Your task to perform on an android device: open a bookmark in the chrome app Image 0: 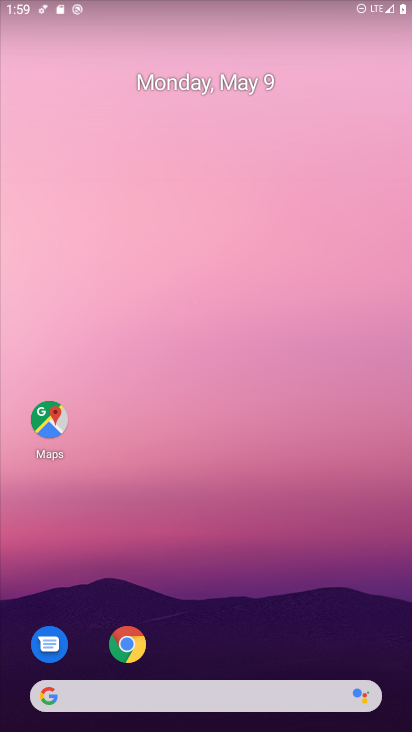
Step 0: drag from (280, 634) to (314, 45)
Your task to perform on an android device: open a bookmark in the chrome app Image 1: 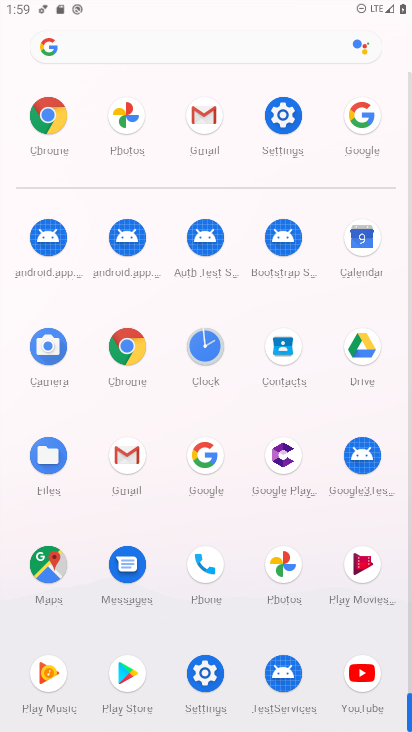
Step 1: click (53, 153)
Your task to perform on an android device: open a bookmark in the chrome app Image 2: 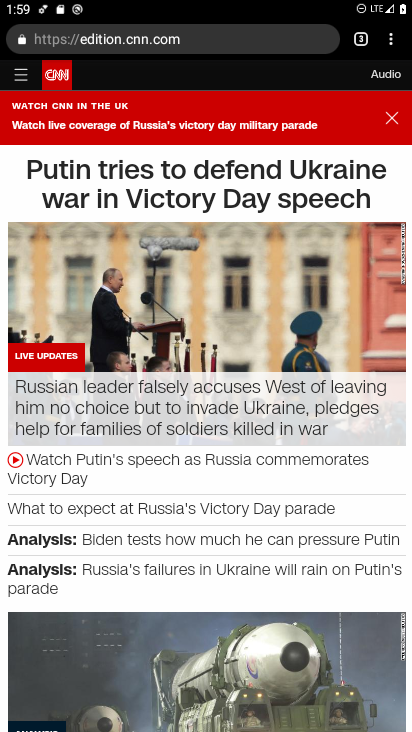
Step 2: click (387, 41)
Your task to perform on an android device: open a bookmark in the chrome app Image 3: 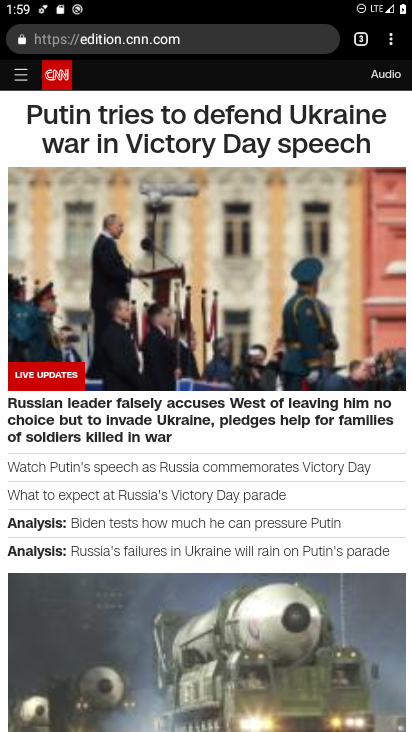
Step 3: click (388, 35)
Your task to perform on an android device: open a bookmark in the chrome app Image 4: 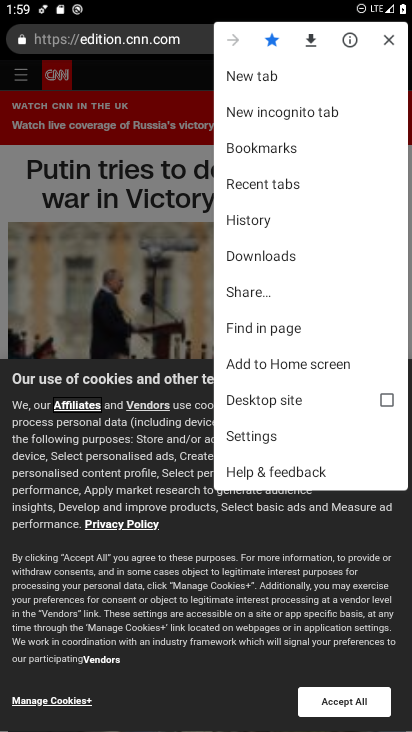
Step 4: click (263, 145)
Your task to perform on an android device: open a bookmark in the chrome app Image 5: 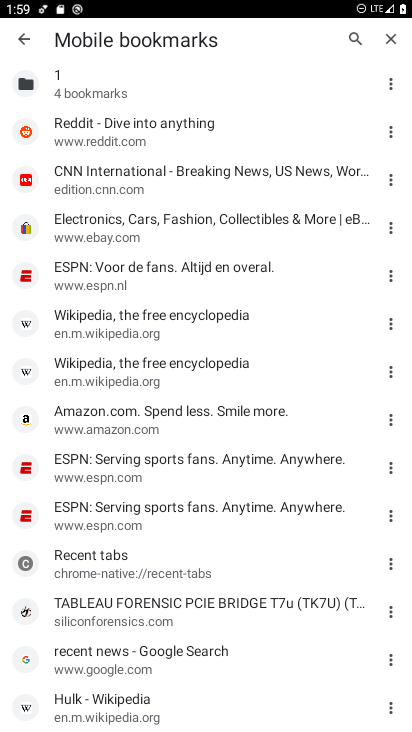
Step 5: click (132, 133)
Your task to perform on an android device: open a bookmark in the chrome app Image 6: 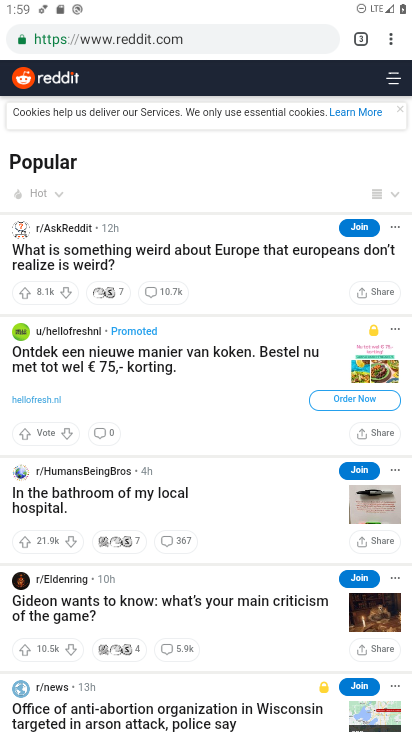
Step 6: task complete